Your task to perform on an android device: Go to Android settings Image 0: 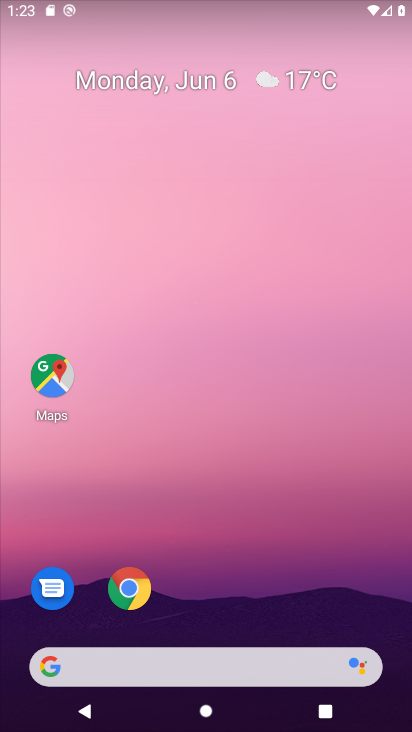
Step 0: drag from (268, 714) to (341, 167)
Your task to perform on an android device: Go to Android settings Image 1: 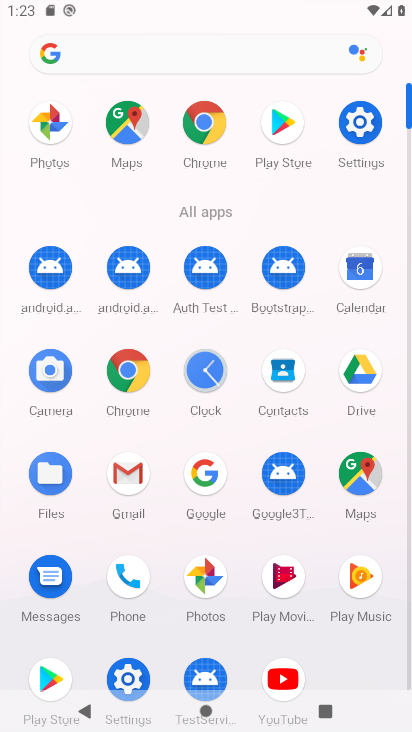
Step 1: click (378, 127)
Your task to perform on an android device: Go to Android settings Image 2: 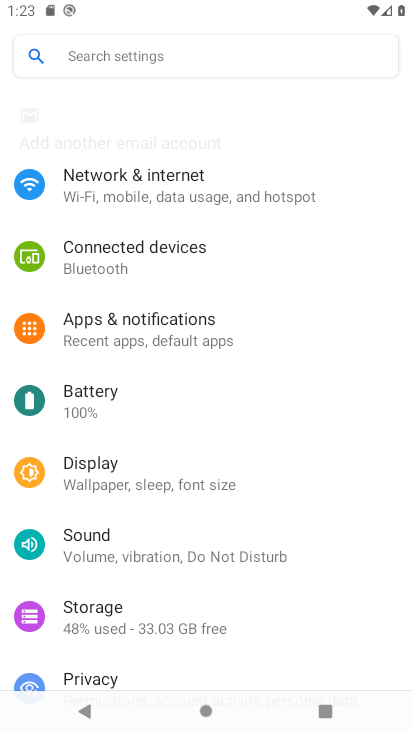
Step 2: drag from (279, 651) to (330, 151)
Your task to perform on an android device: Go to Android settings Image 3: 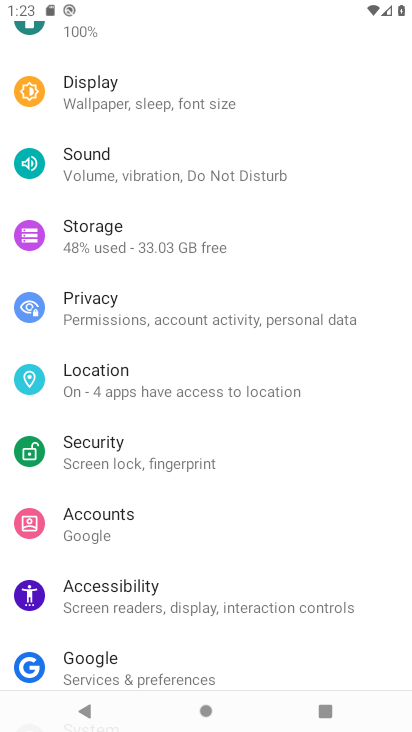
Step 3: drag from (261, 629) to (269, 126)
Your task to perform on an android device: Go to Android settings Image 4: 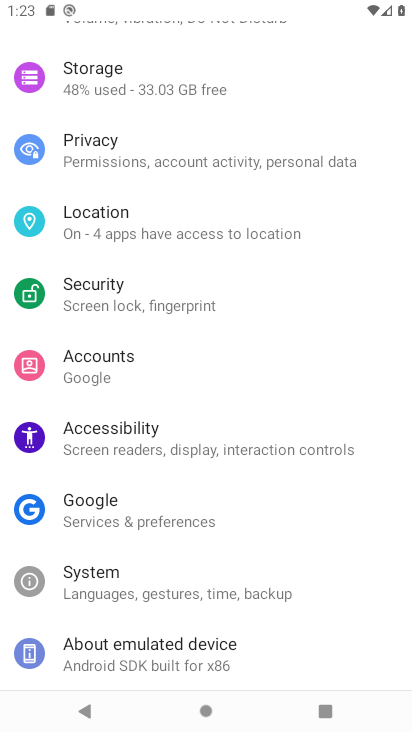
Step 4: drag from (235, 650) to (264, 52)
Your task to perform on an android device: Go to Android settings Image 5: 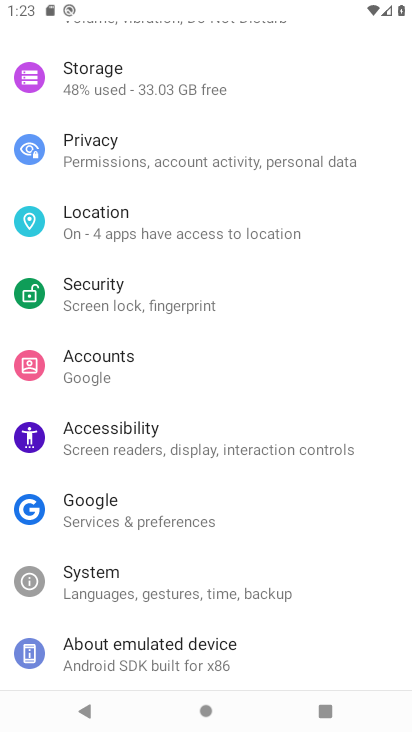
Step 5: click (221, 646)
Your task to perform on an android device: Go to Android settings Image 6: 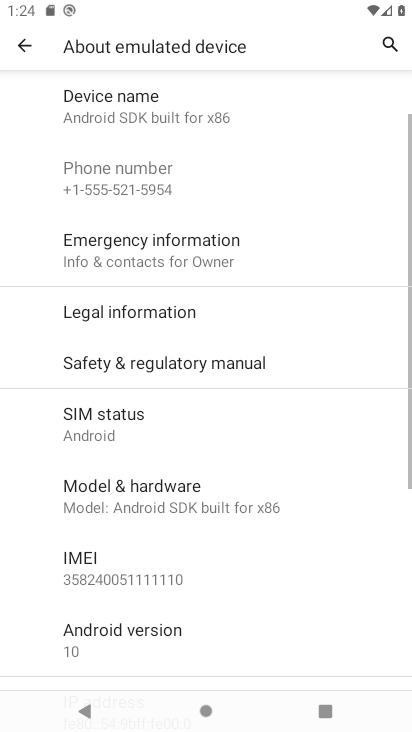
Step 6: task complete